Your task to perform on an android device: Check the settings for the Instagram app Image 0: 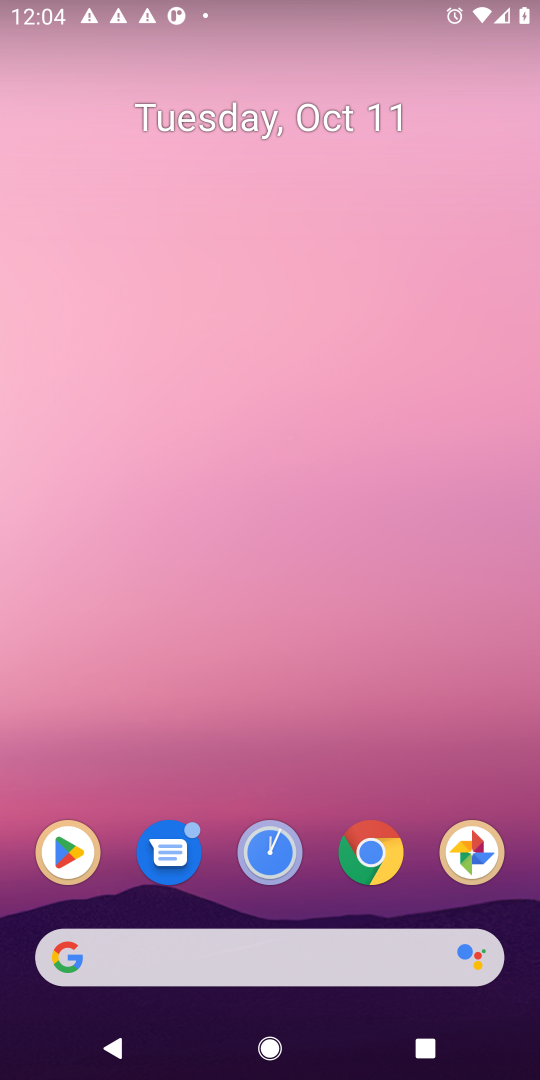
Step 0: click (51, 844)
Your task to perform on an android device: Check the settings for the Instagram app Image 1: 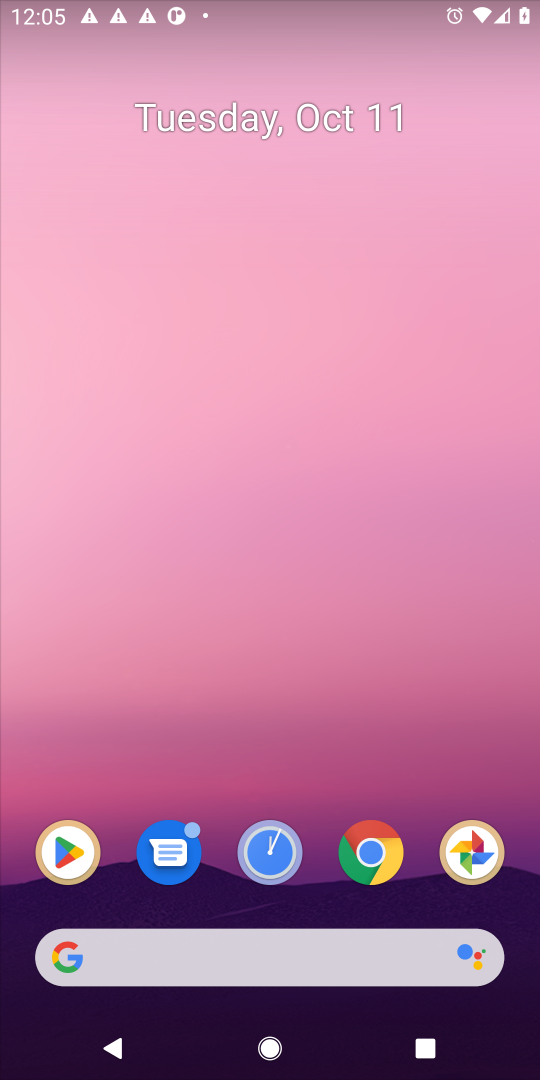
Step 1: click (71, 843)
Your task to perform on an android device: Check the settings for the Instagram app Image 2: 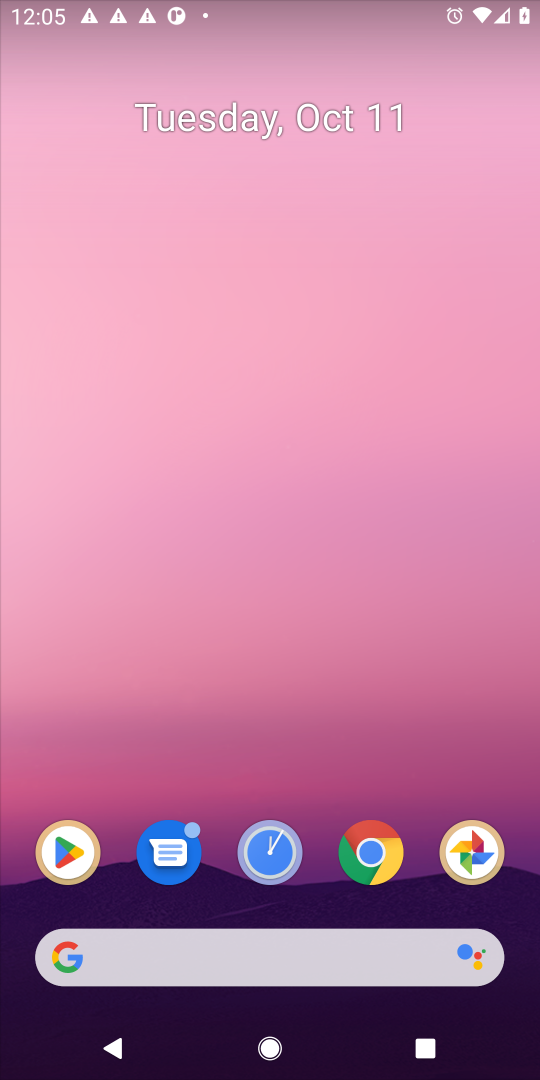
Step 2: click (71, 843)
Your task to perform on an android device: Check the settings for the Instagram app Image 3: 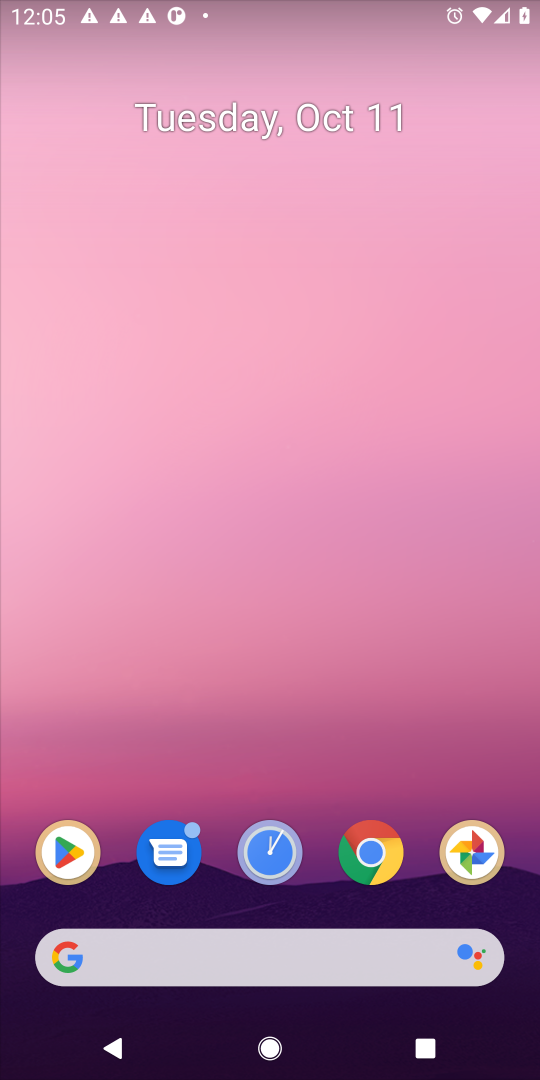
Step 3: click (63, 863)
Your task to perform on an android device: Check the settings for the Instagram app Image 4: 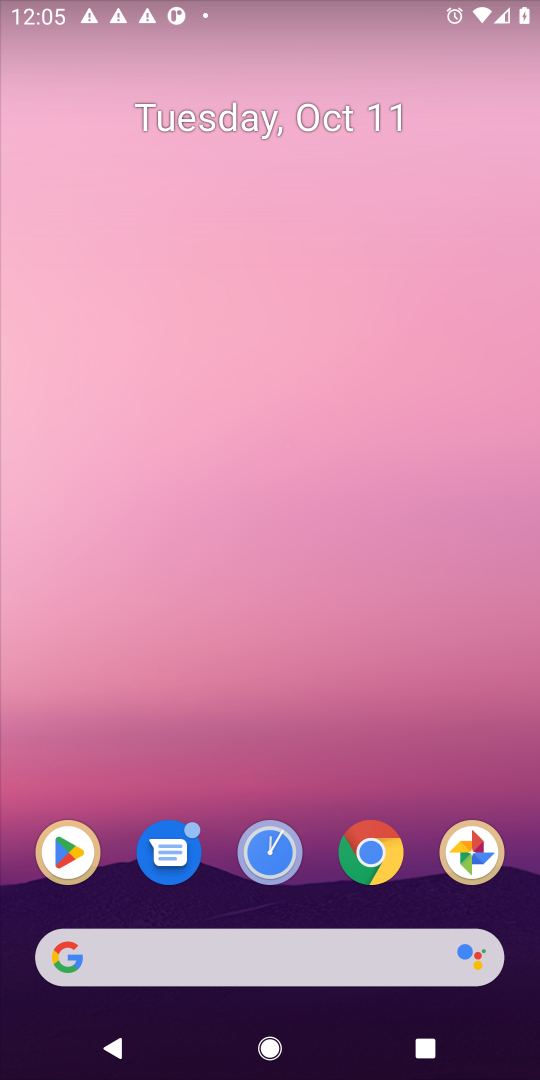
Step 4: click (67, 860)
Your task to perform on an android device: Check the settings for the Instagram app Image 5: 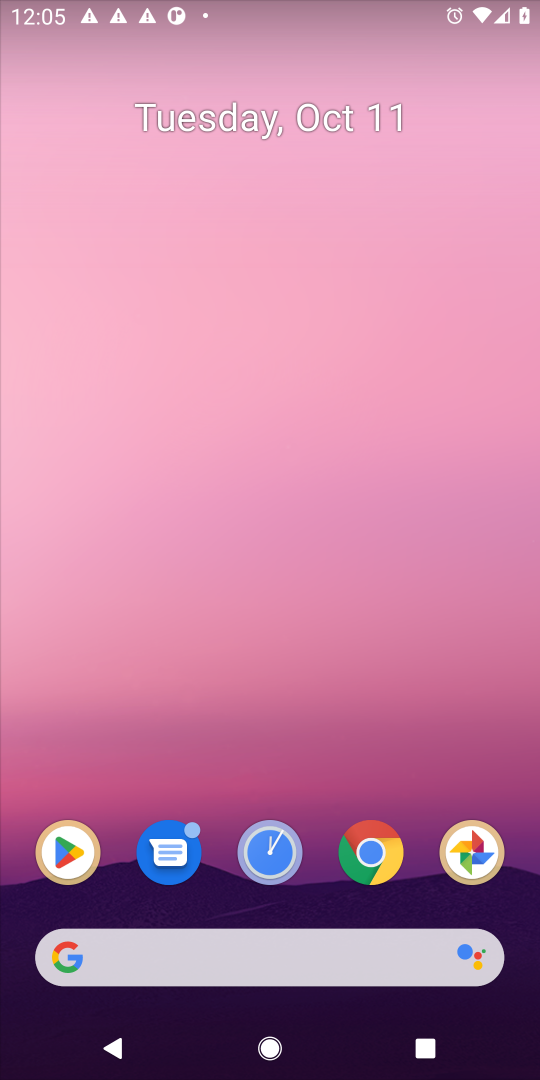
Step 5: click (67, 860)
Your task to perform on an android device: Check the settings for the Instagram app Image 6: 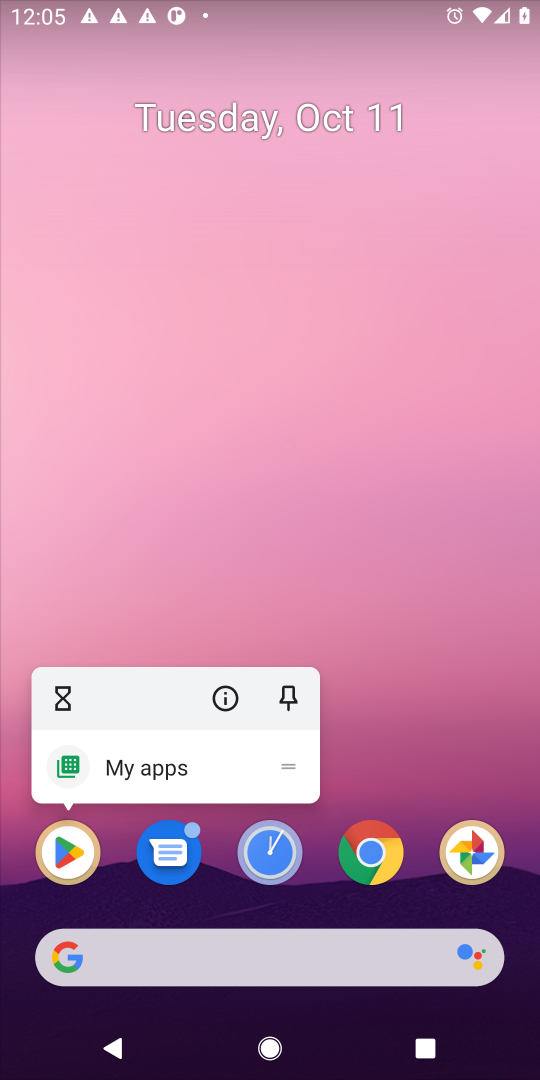
Step 6: drag from (525, 937) to (67, 860)
Your task to perform on an android device: Check the settings for the Instagram app Image 7: 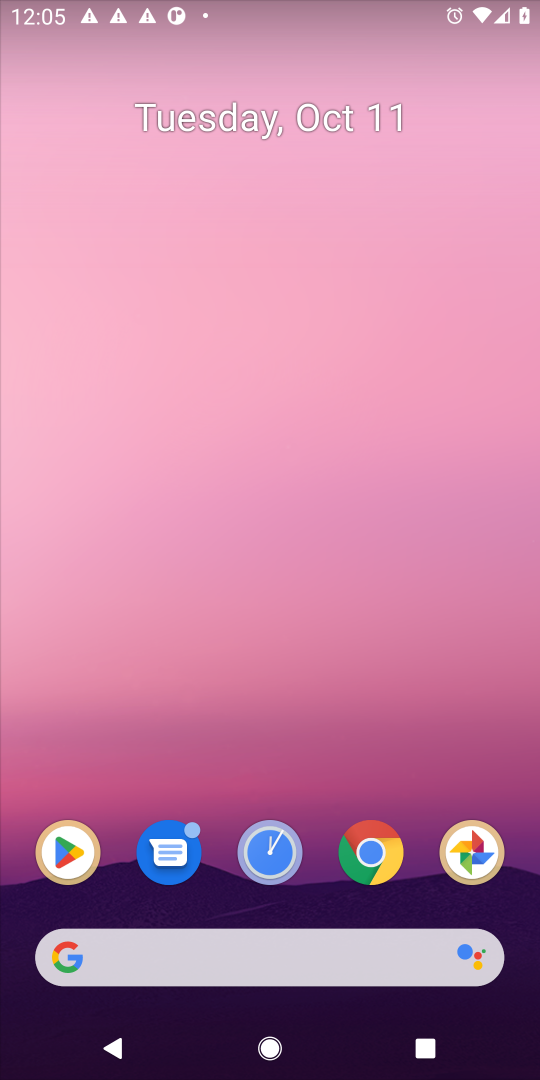
Step 7: click (67, 860)
Your task to perform on an android device: Check the settings for the Instagram app Image 8: 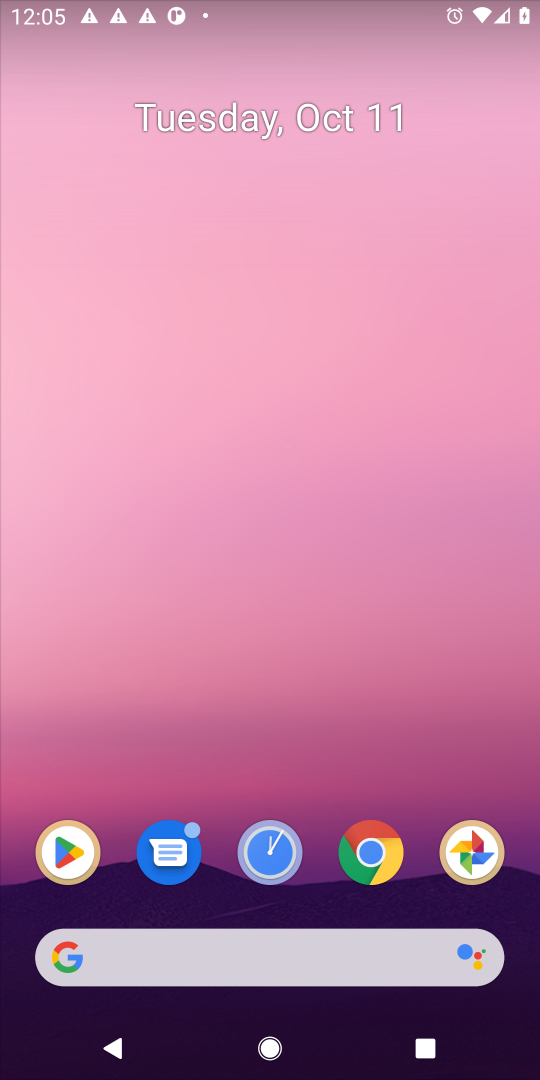
Step 8: click (67, 849)
Your task to perform on an android device: Check the settings for the Instagram app Image 9: 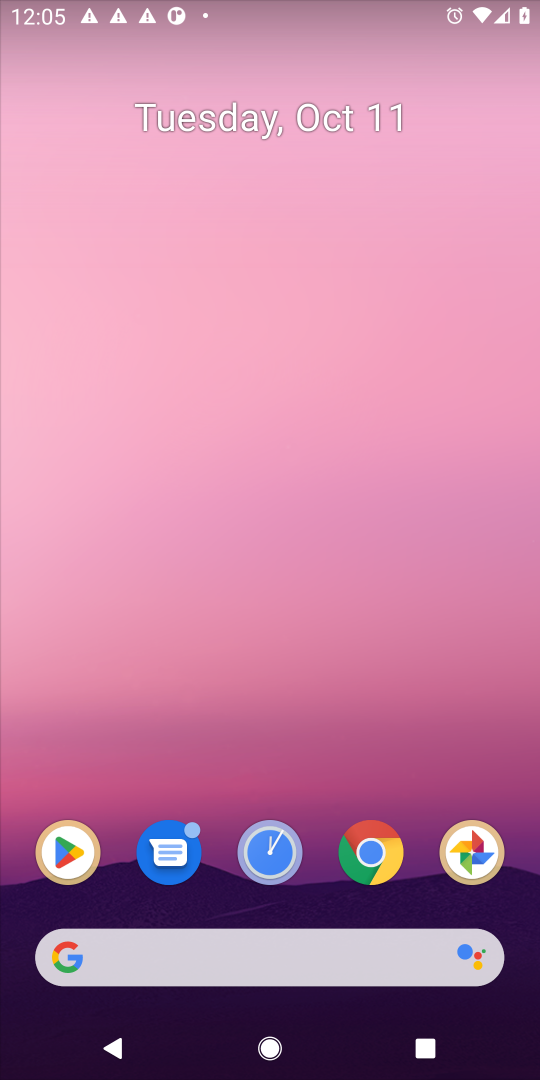
Step 9: click (67, 849)
Your task to perform on an android device: Check the settings for the Instagram app Image 10: 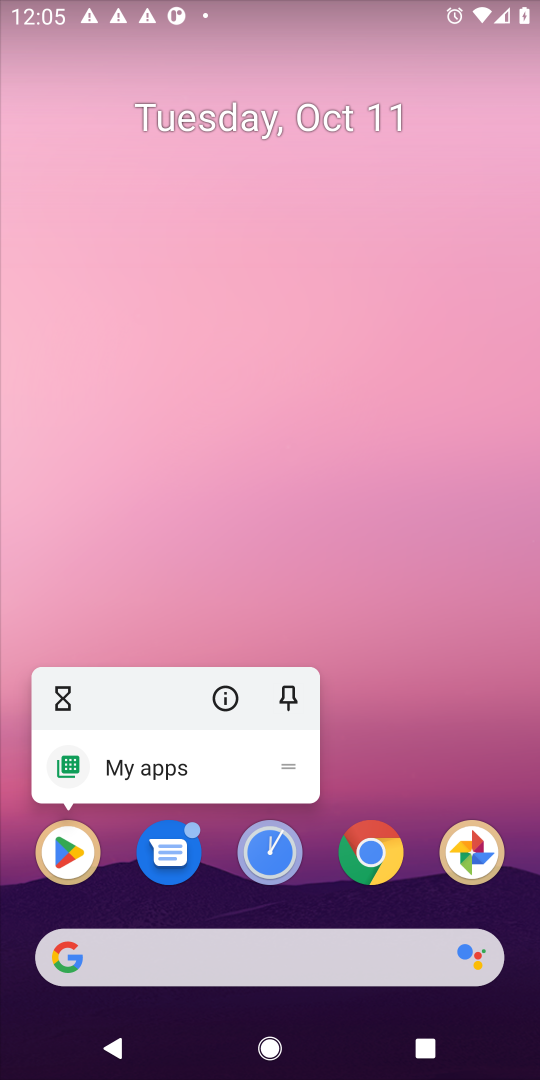
Step 10: click (67, 849)
Your task to perform on an android device: Check the settings for the Instagram app Image 11: 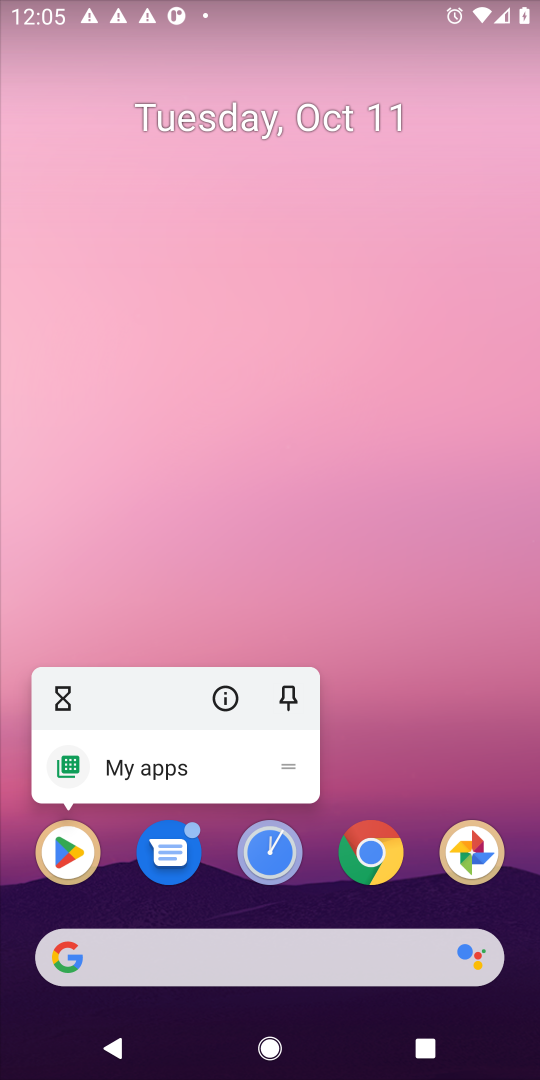
Step 11: click (67, 849)
Your task to perform on an android device: Check the settings for the Instagram app Image 12: 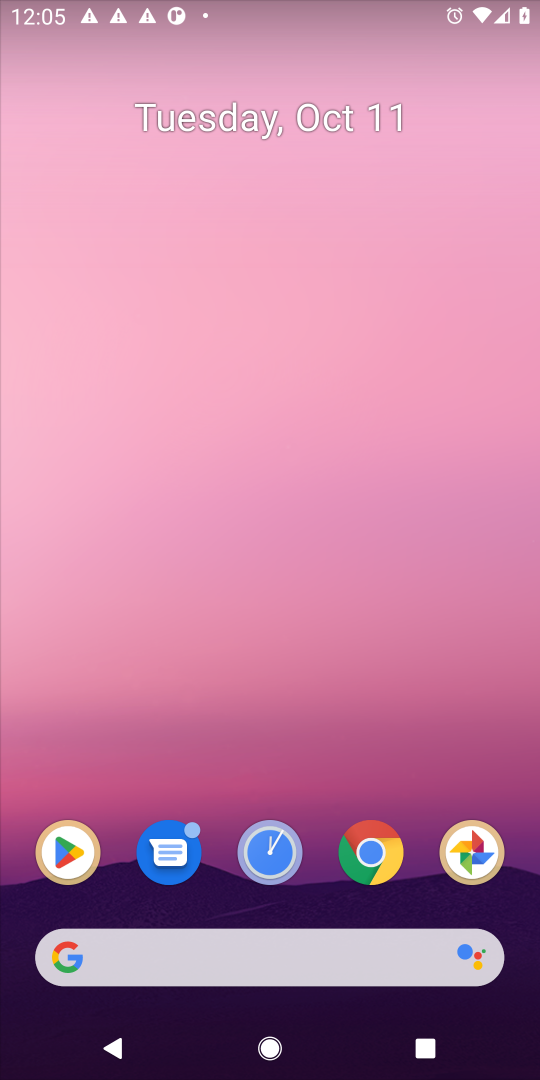
Step 12: click (67, 849)
Your task to perform on an android device: Check the settings for the Instagram app Image 13: 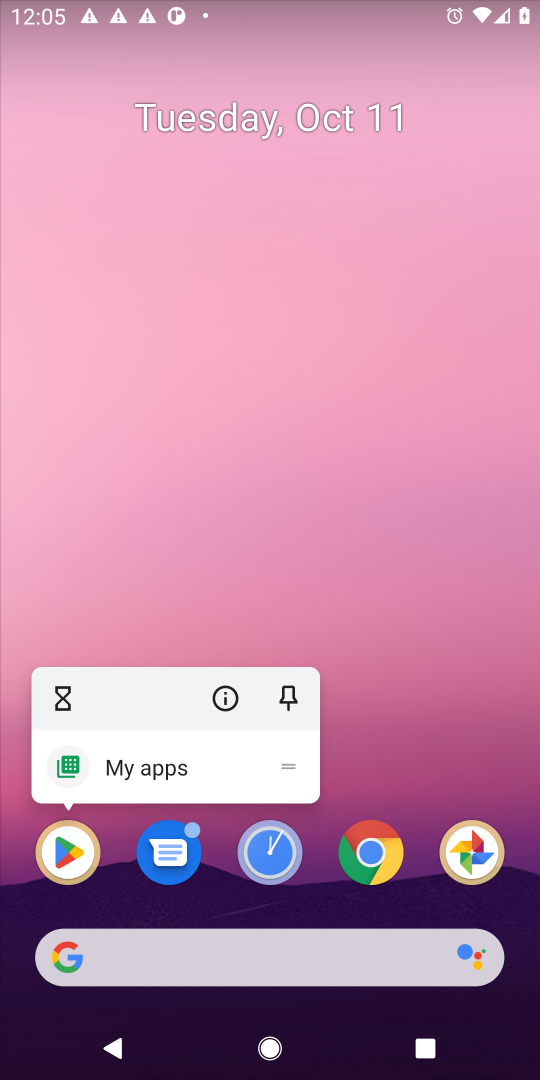
Step 13: click (67, 849)
Your task to perform on an android device: Check the settings for the Instagram app Image 14: 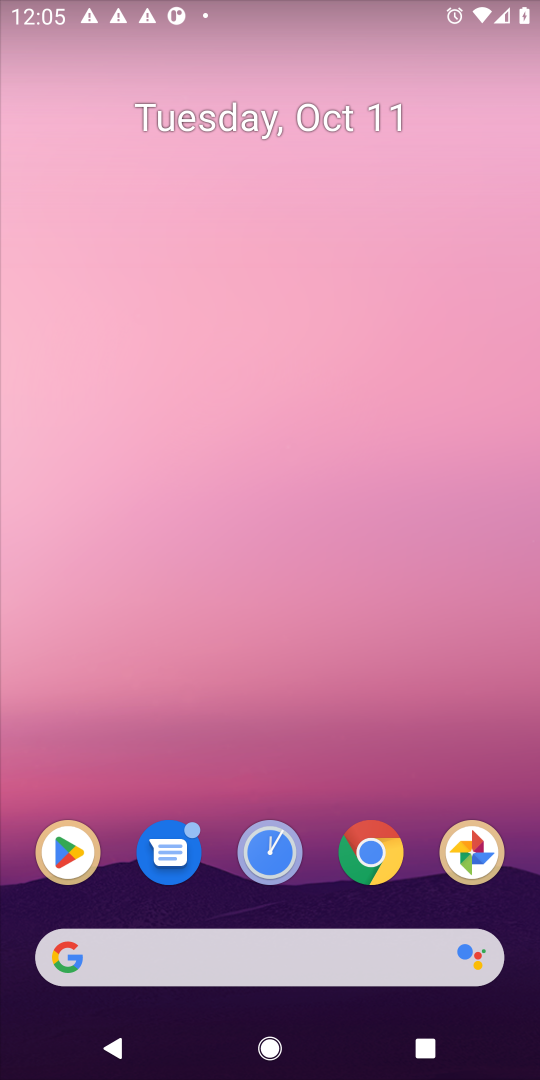
Step 14: click (67, 849)
Your task to perform on an android device: Check the settings for the Instagram app Image 15: 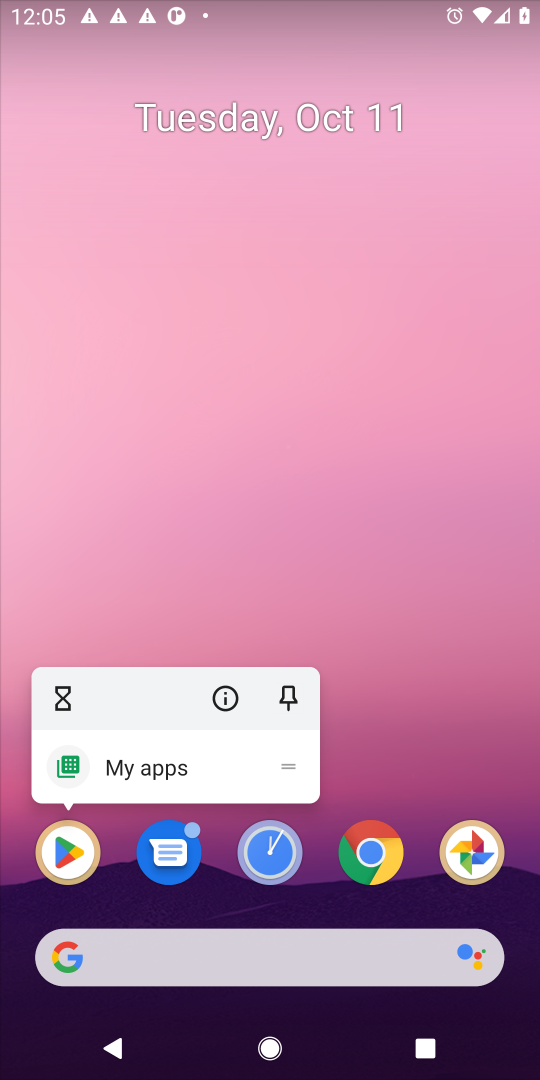
Step 15: click (67, 849)
Your task to perform on an android device: Check the settings for the Instagram app Image 16: 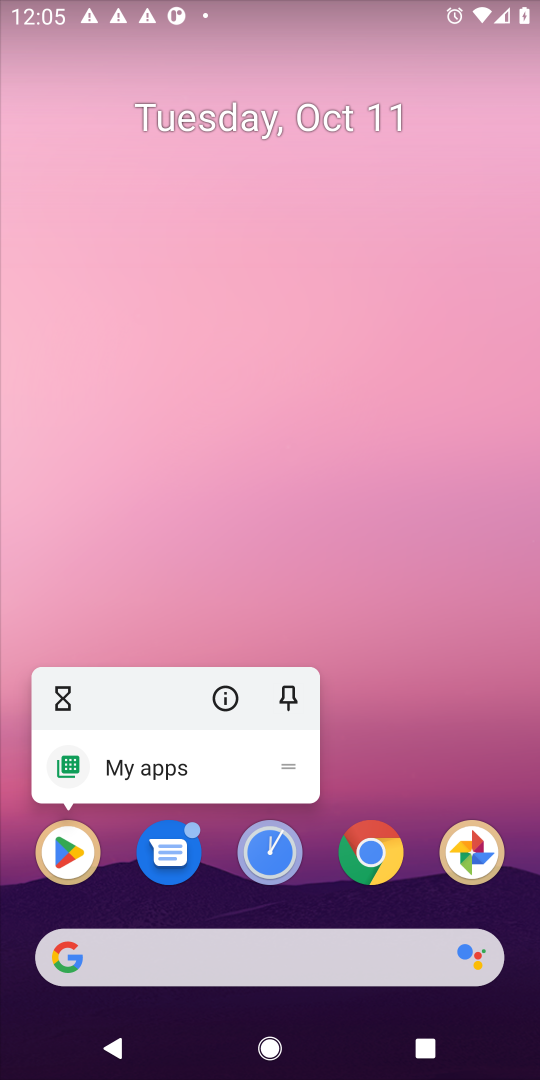
Step 16: click (67, 849)
Your task to perform on an android device: Check the settings for the Instagram app Image 17: 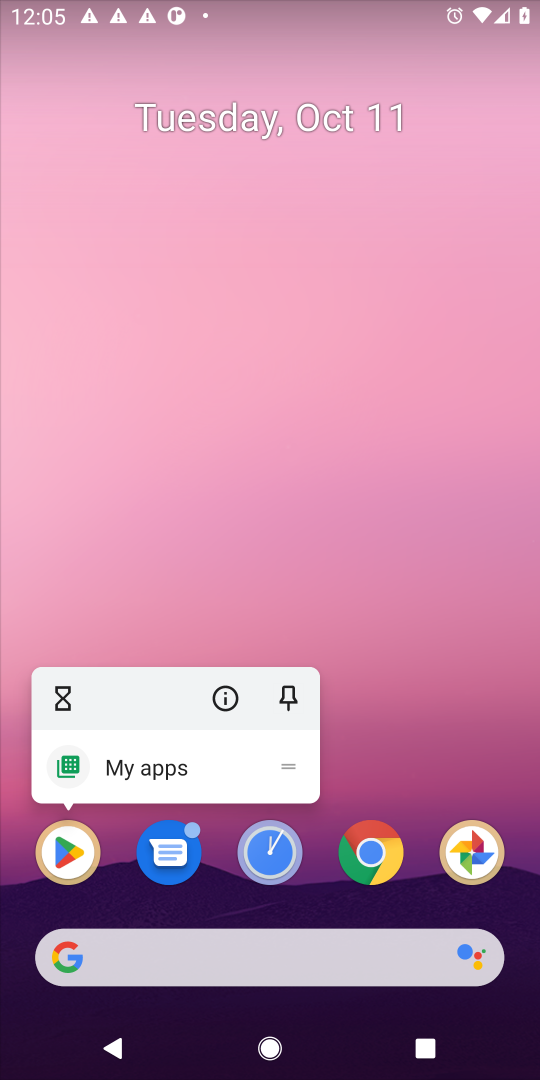
Step 17: click (52, 854)
Your task to perform on an android device: Check the settings for the Instagram app Image 18: 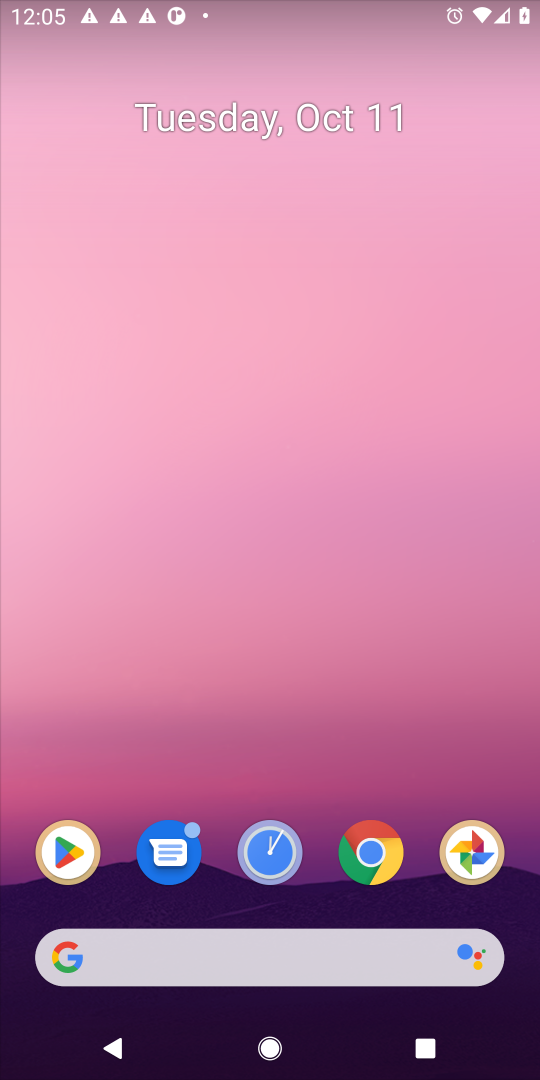
Step 18: click (52, 854)
Your task to perform on an android device: Check the settings for the Instagram app Image 19: 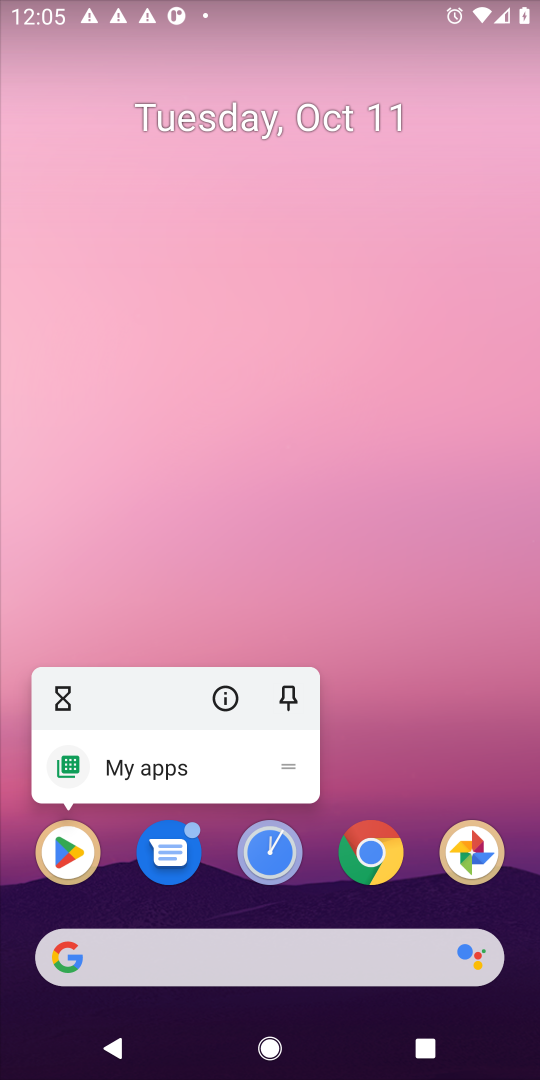
Step 19: click (72, 854)
Your task to perform on an android device: Check the settings for the Instagram app Image 20: 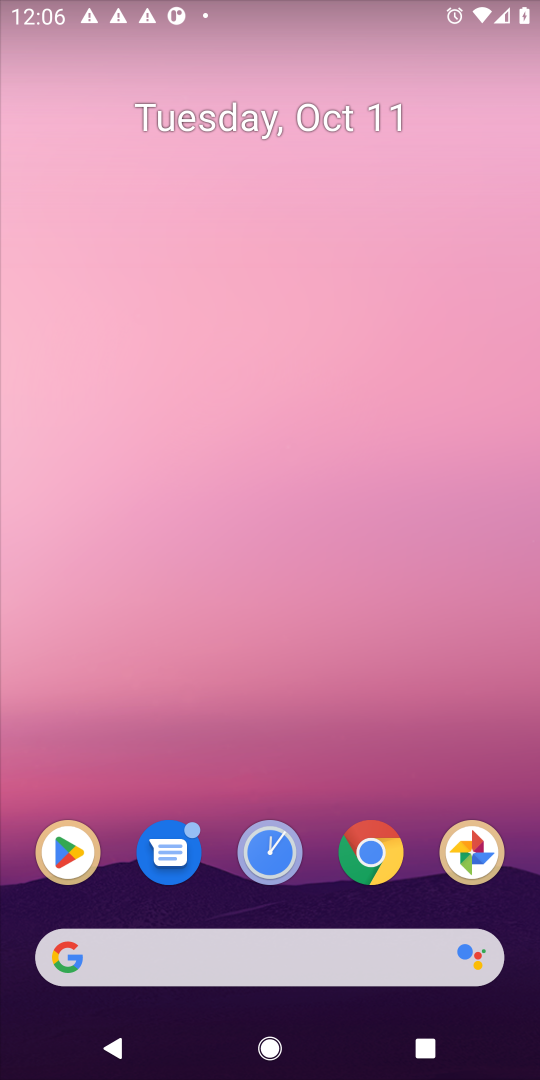
Step 20: click (72, 854)
Your task to perform on an android device: Check the settings for the Instagram app Image 21: 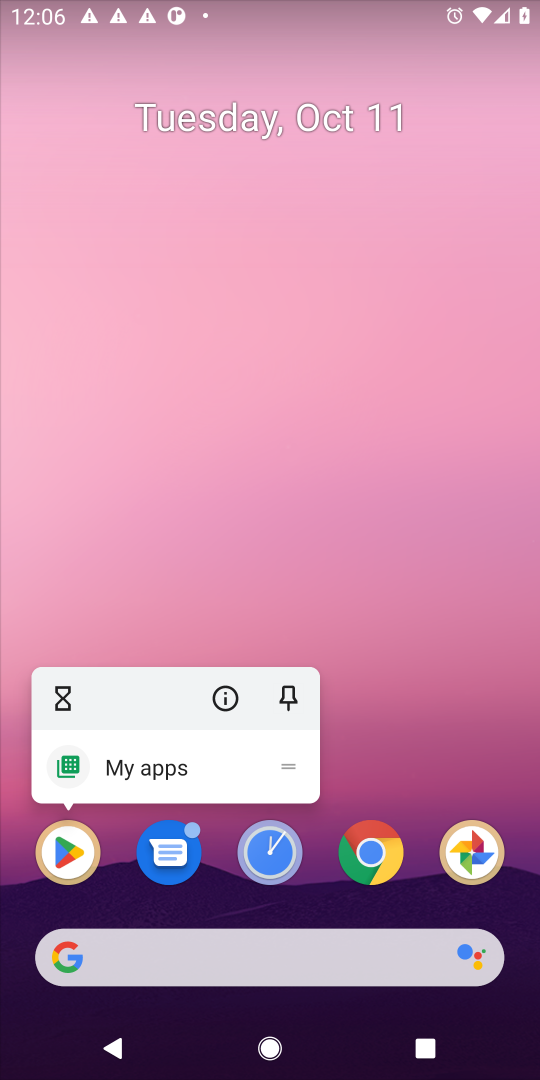
Step 21: click (72, 854)
Your task to perform on an android device: Check the settings for the Instagram app Image 22: 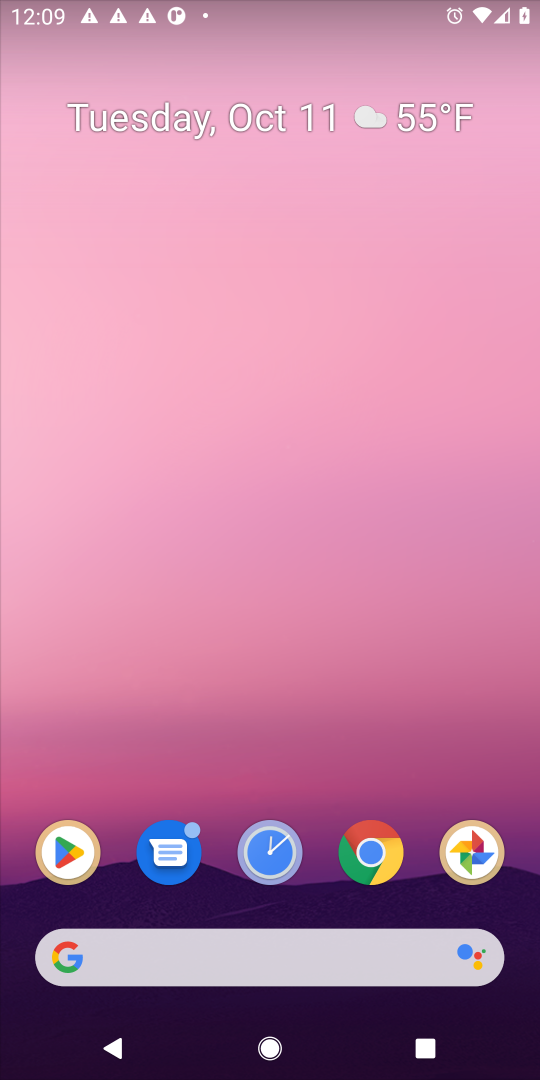
Step 22: task complete